Your task to perform on an android device: turn off sleep mode Image 0: 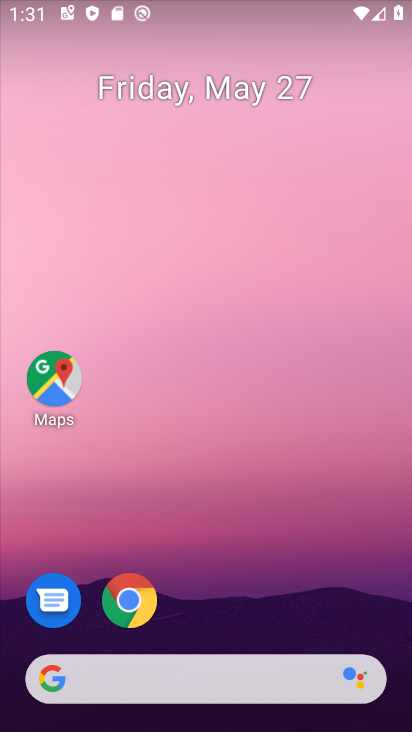
Step 0: click (205, 391)
Your task to perform on an android device: turn off sleep mode Image 1: 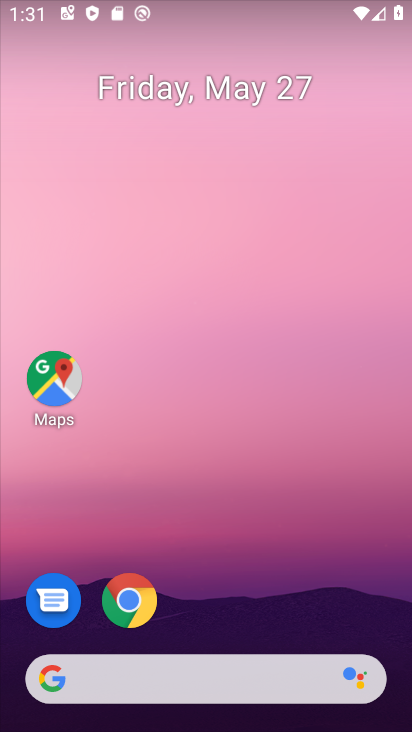
Step 1: click (205, 64)
Your task to perform on an android device: turn off sleep mode Image 2: 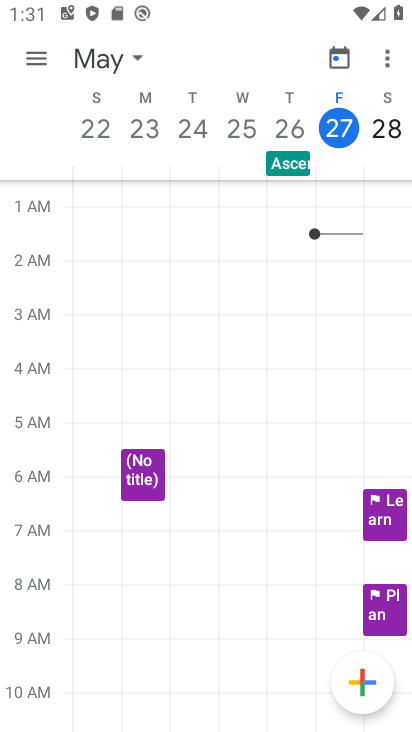
Step 2: press home button
Your task to perform on an android device: turn off sleep mode Image 3: 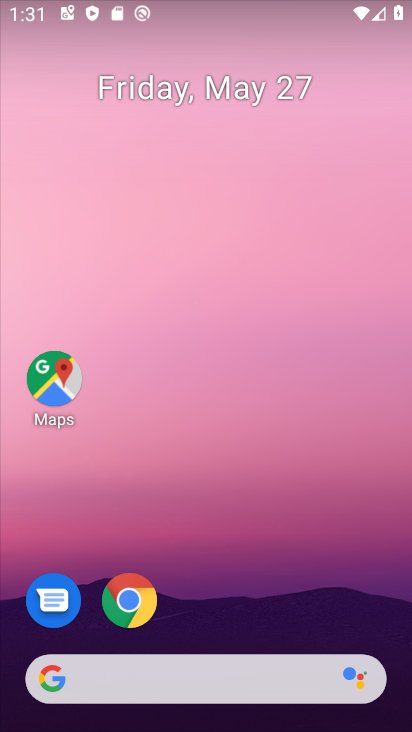
Step 3: drag from (198, 721) to (202, 88)
Your task to perform on an android device: turn off sleep mode Image 4: 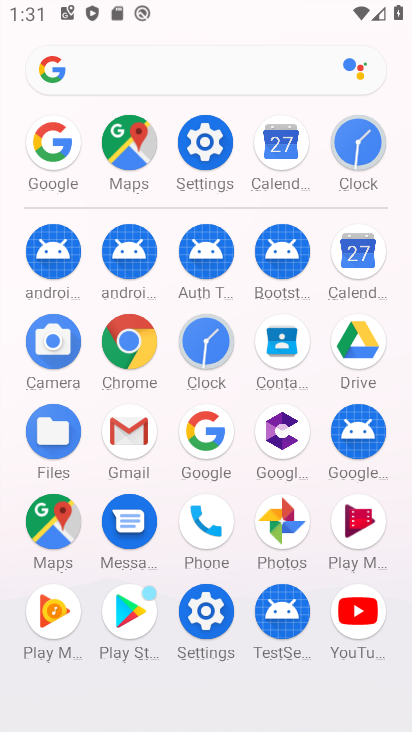
Step 4: click (211, 140)
Your task to perform on an android device: turn off sleep mode Image 5: 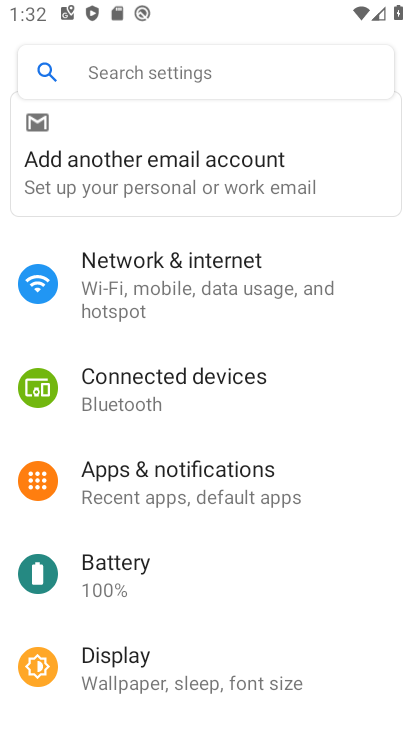
Step 5: task complete